Your task to perform on an android device: turn smart compose on in the gmail app Image 0: 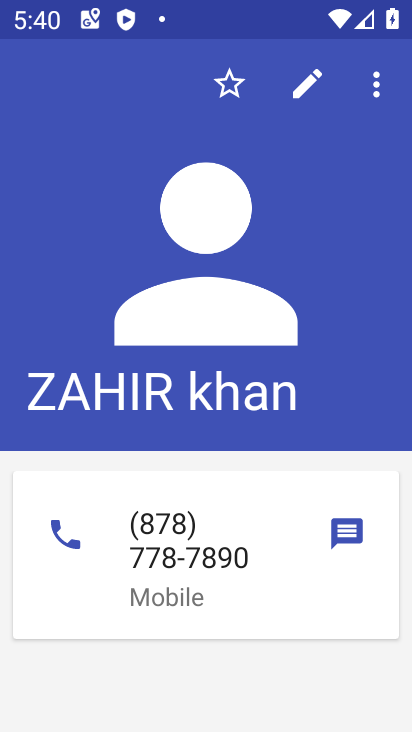
Step 0: press home button
Your task to perform on an android device: turn smart compose on in the gmail app Image 1: 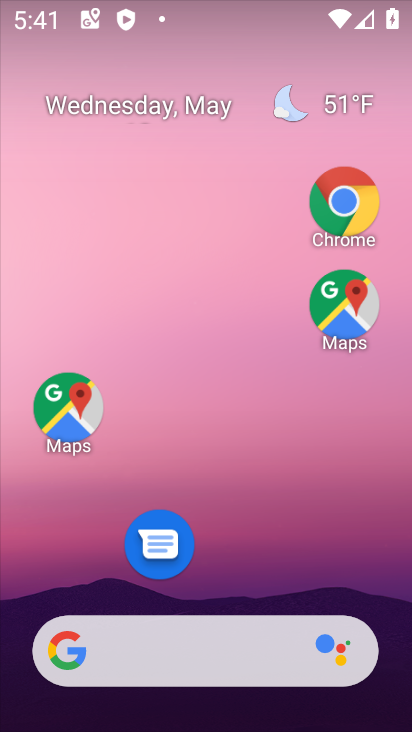
Step 1: drag from (229, 588) to (151, 36)
Your task to perform on an android device: turn smart compose on in the gmail app Image 2: 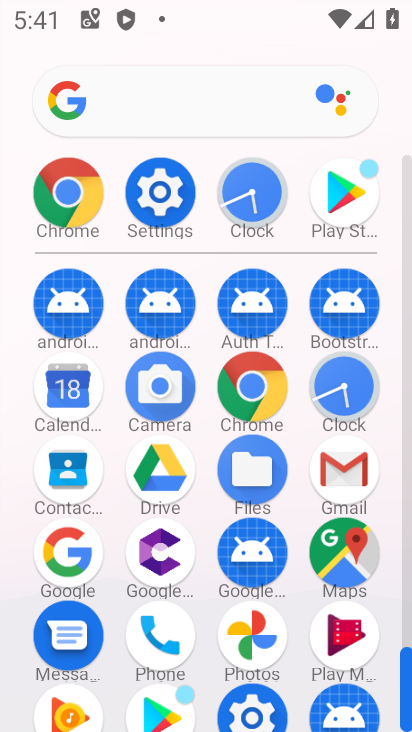
Step 2: click (364, 472)
Your task to perform on an android device: turn smart compose on in the gmail app Image 3: 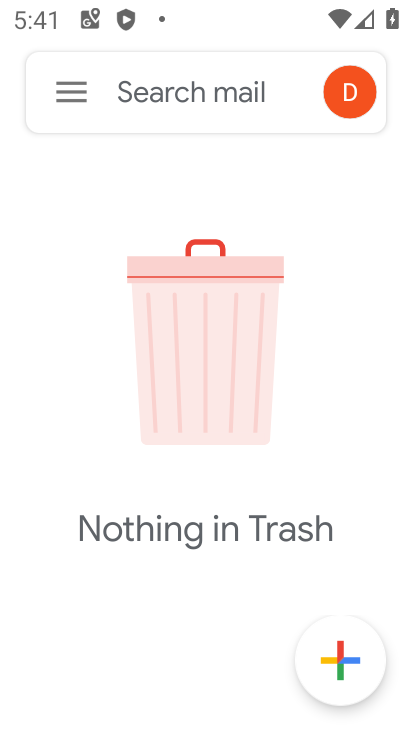
Step 3: click (65, 102)
Your task to perform on an android device: turn smart compose on in the gmail app Image 4: 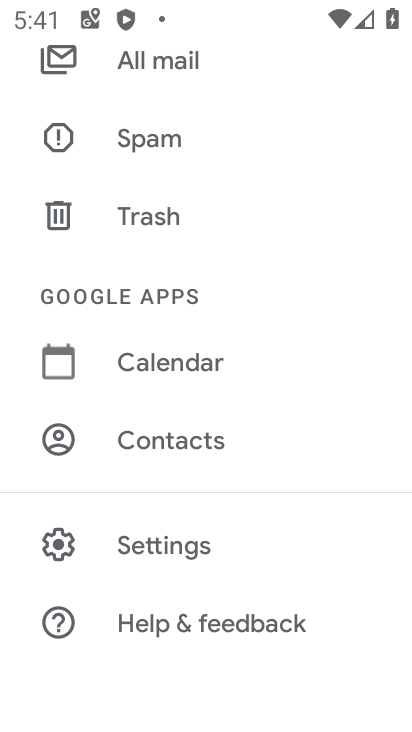
Step 4: click (186, 542)
Your task to perform on an android device: turn smart compose on in the gmail app Image 5: 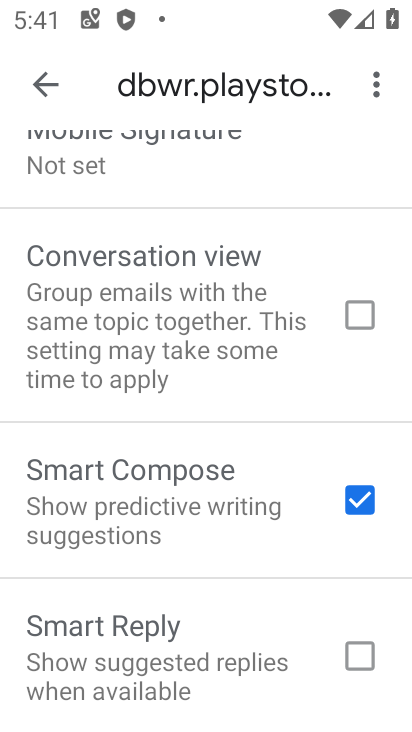
Step 5: task complete